Your task to perform on an android device: Search for sushi restaurants on Maps Image 0: 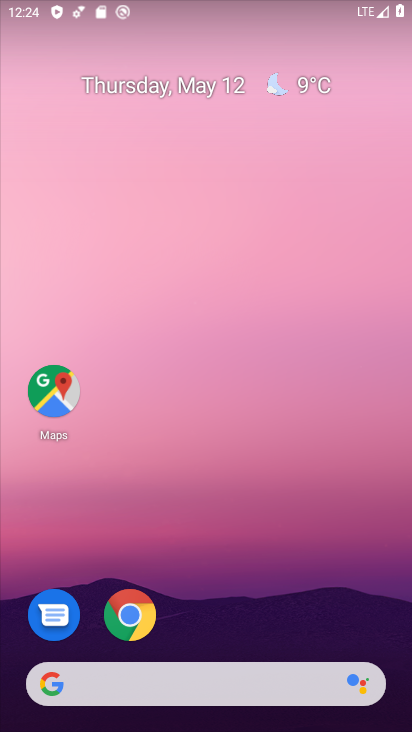
Step 0: click (56, 391)
Your task to perform on an android device: Search for sushi restaurants on Maps Image 1: 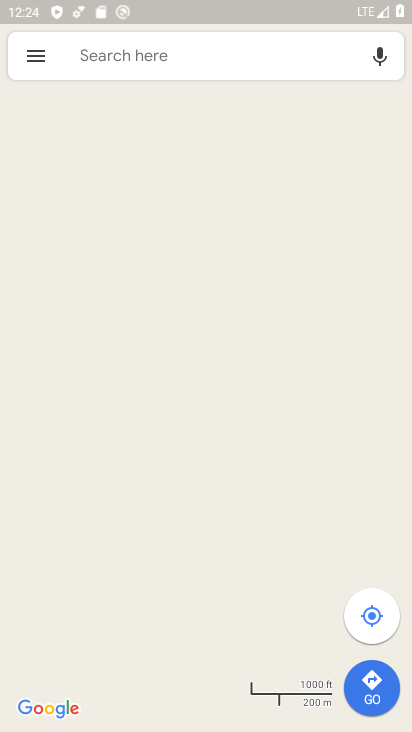
Step 1: click (235, 61)
Your task to perform on an android device: Search for sushi restaurants on Maps Image 2: 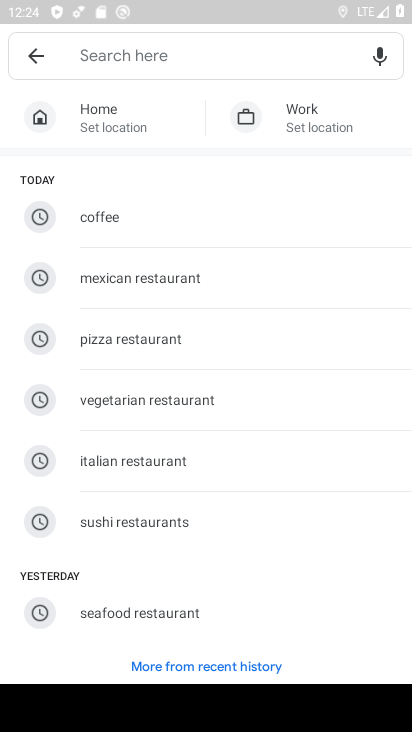
Step 2: type "sushi restaurants"
Your task to perform on an android device: Search for sushi restaurants on Maps Image 3: 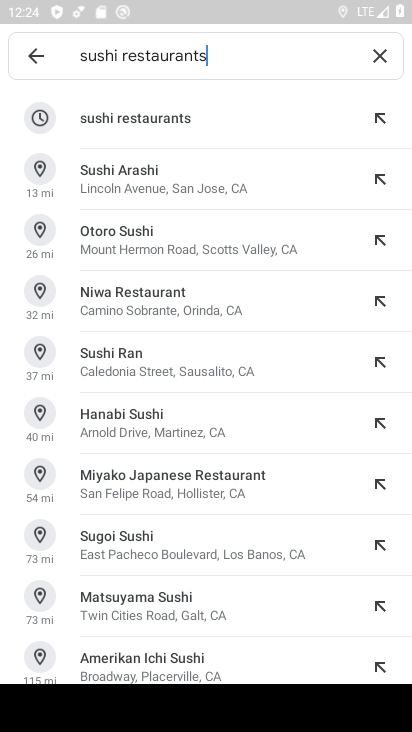
Step 3: click (171, 119)
Your task to perform on an android device: Search for sushi restaurants on Maps Image 4: 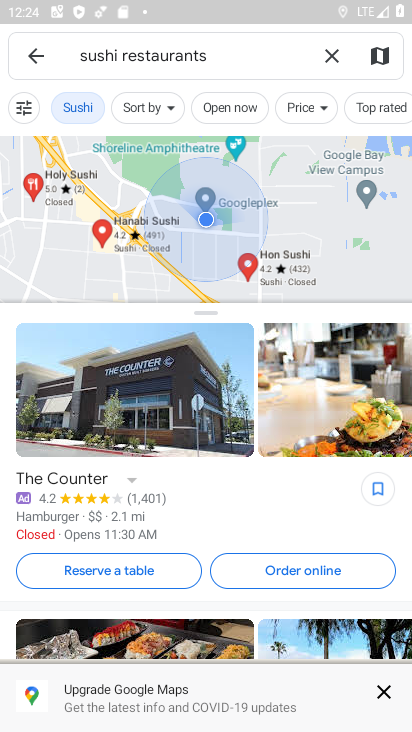
Step 4: task complete